Your task to perform on an android device: change the clock display to show seconds Image 0: 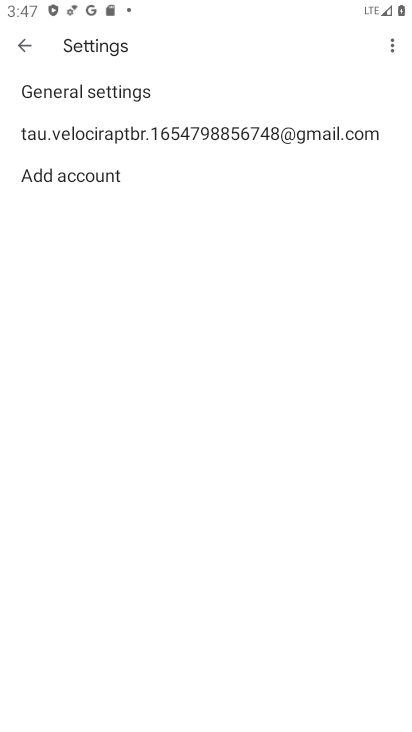
Step 0: click (25, 42)
Your task to perform on an android device: change the clock display to show seconds Image 1: 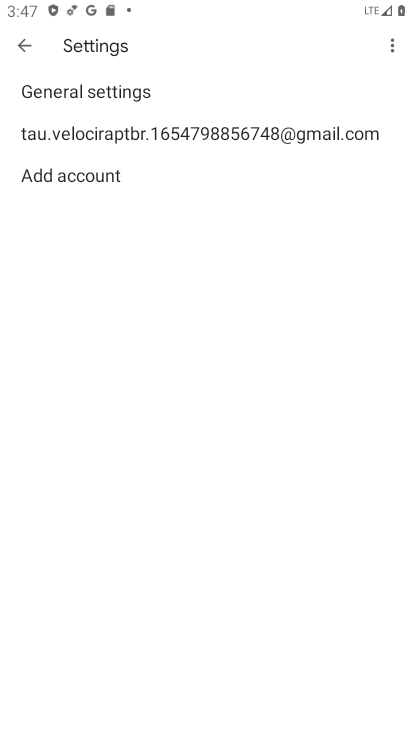
Step 1: click (25, 42)
Your task to perform on an android device: change the clock display to show seconds Image 2: 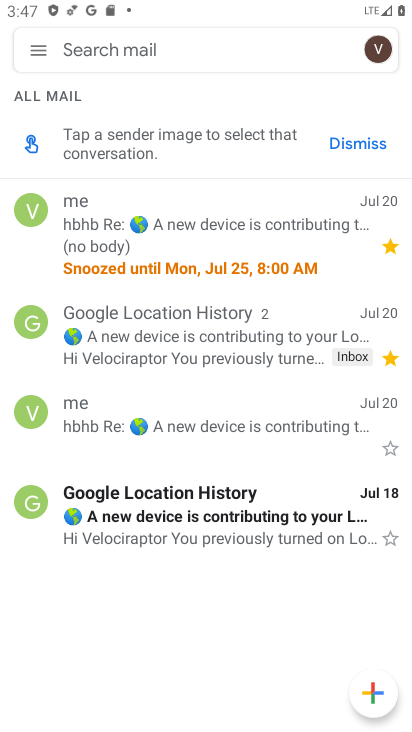
Step 2: press back button
Your task to perform on an android device: change the clock display to show seconds Image 3: 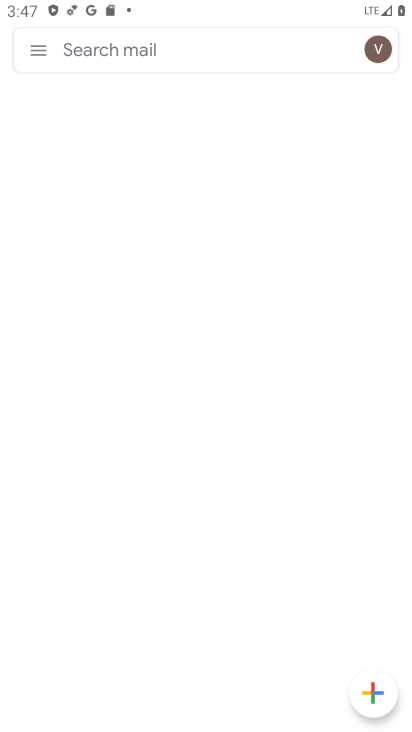
Step 3: press back button
Your task to perform on an android device: change the clock display to show seconds Image 4: 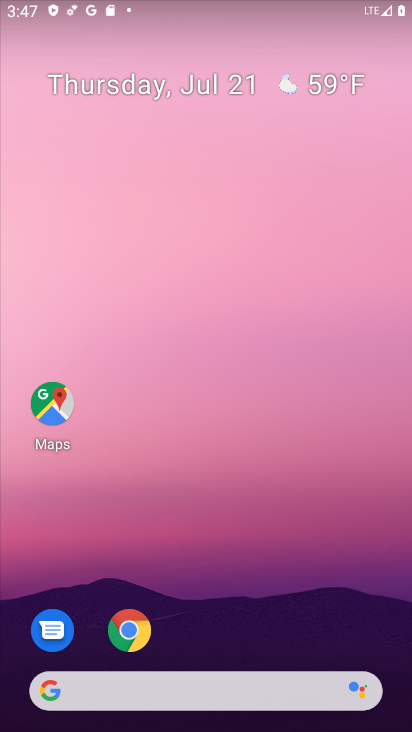
Step 4: drag from (186, 591) to (151, 5)
Your task to perform on an android device: change the clock display to show seconds Image 5: 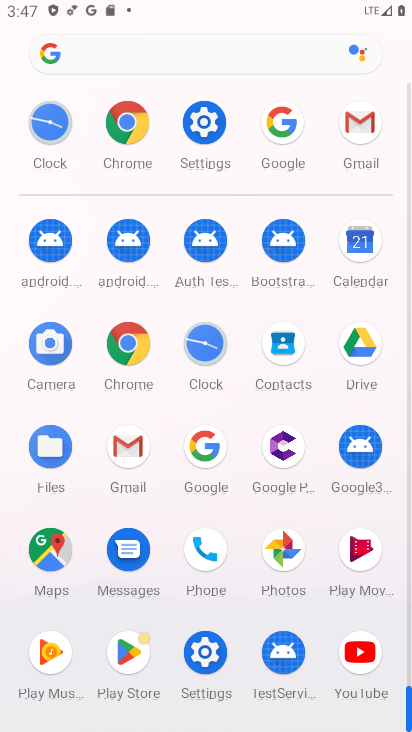
Step 5: click (208, 347)
Your task to perform on an android device: change the clock display to show seconds Image 6: 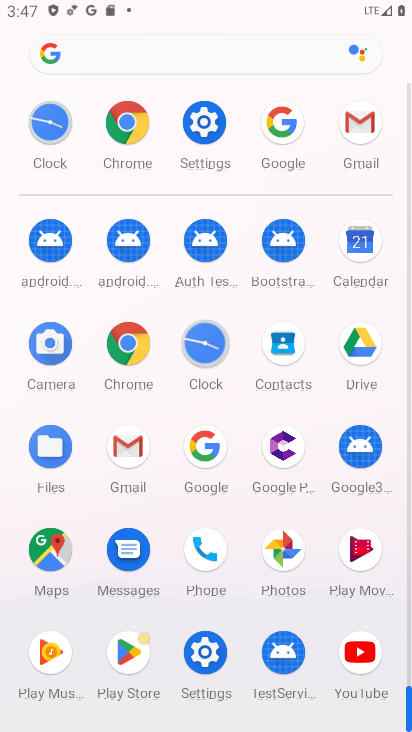
Step 6: click (209, 346)
Your task to perform on an android device: change the clock display to show seconds Image 7: 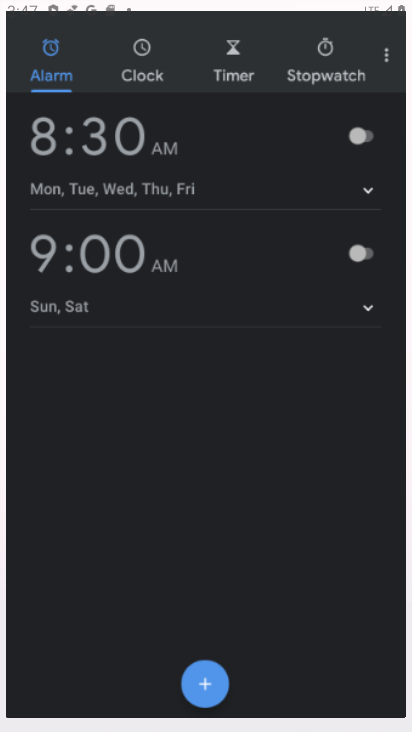
Step 7: click (210, 346)
Your task to perform on an android device: change the clock display to show seconds Image 8: 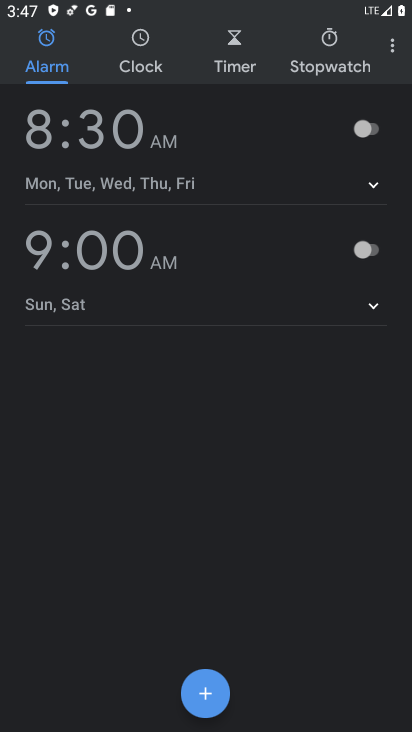
Step 8: click (210, 346)
Your task to perform on an android device: change the clock display to show seconds Image 9: 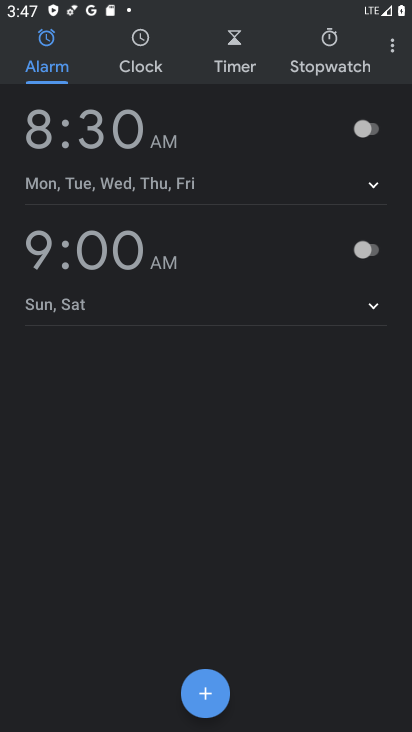
Step 9: click (389, 43)
Your task to perform on an android device: change the clock display to show seconds Image 10: 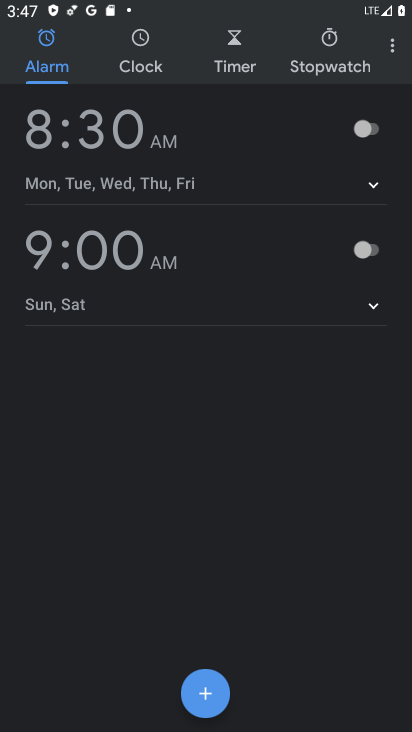
Step 10: click (409, 116)
Your task to perform on an android device: change the clock display to show seconds Image 11: 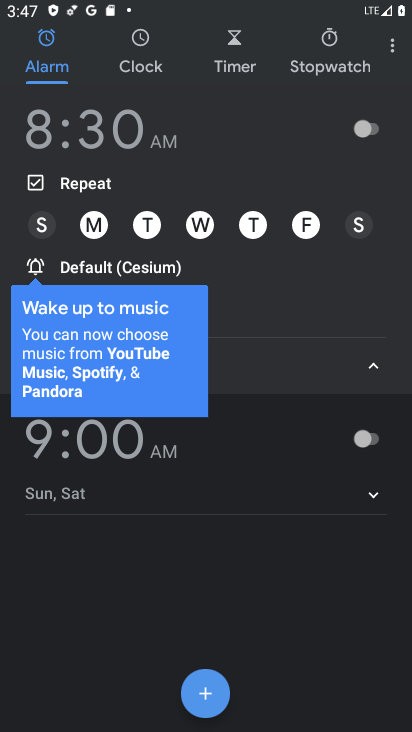
Step 11: click (384, 48)
Your task to perform on an android device: change the clock display to show seconds Image 12: 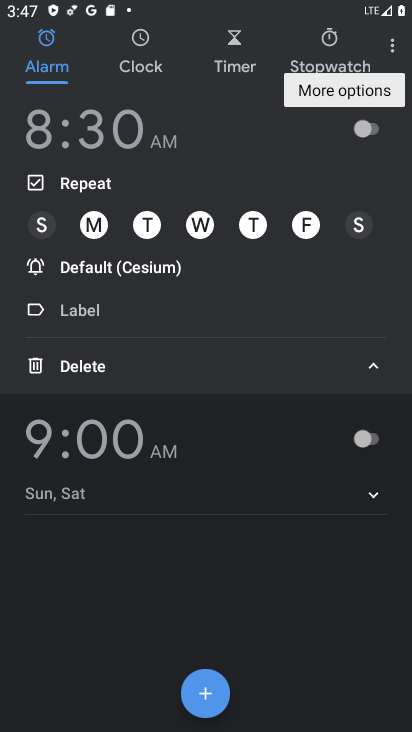
Step 12: click (390, 54)
Your task to perform on an android device: change the clock display to show seconds Image 13: 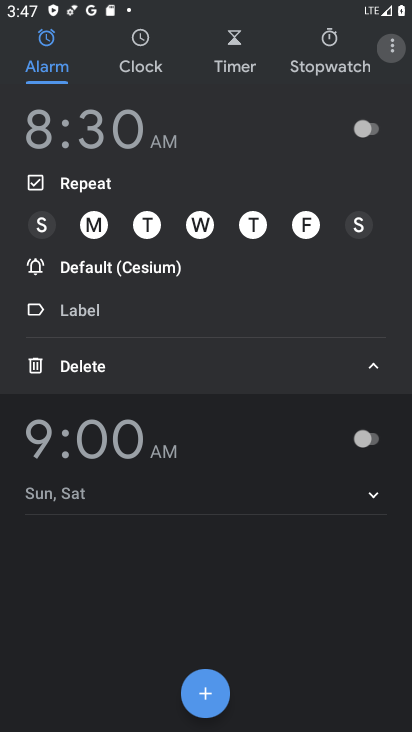
Step 13: click (390, 52)
Your task to perform on an android device: change the clock display to show seconds Image 14: 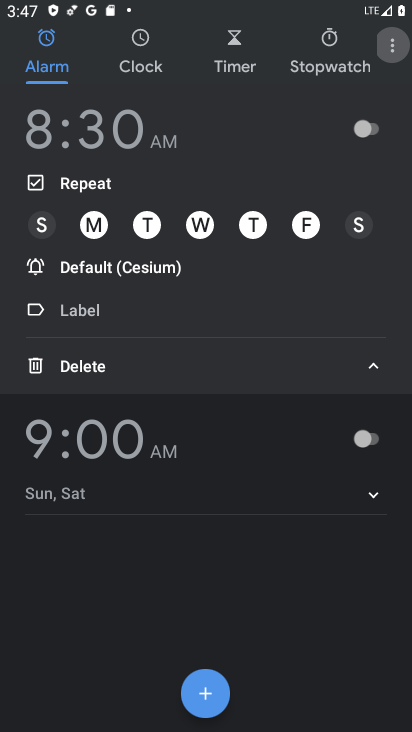
Step 14: click (390, 52)
Your task to perform on an android device: change the clock display to show seconds Image 15: 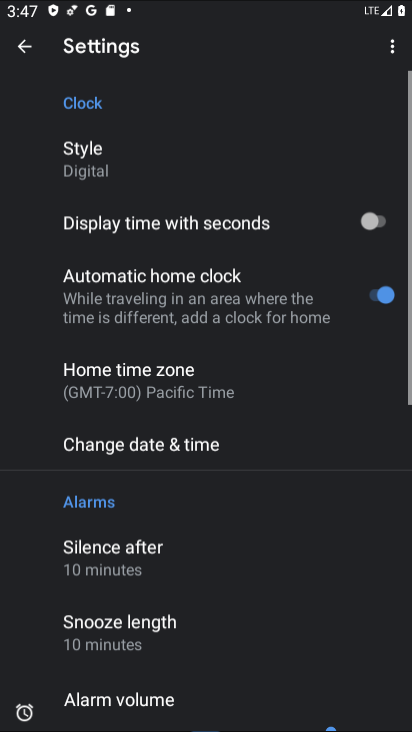
Step 15: click (291, 83)
Your task to perform on an android device: change the clock display to show seconds Image 16: 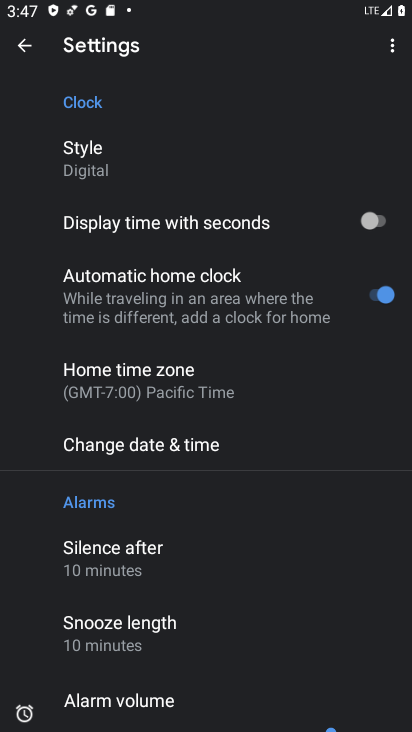
Step 16: click (366, 220)
Your task to perform on an android device: change the clock display to show seconds Image 17: 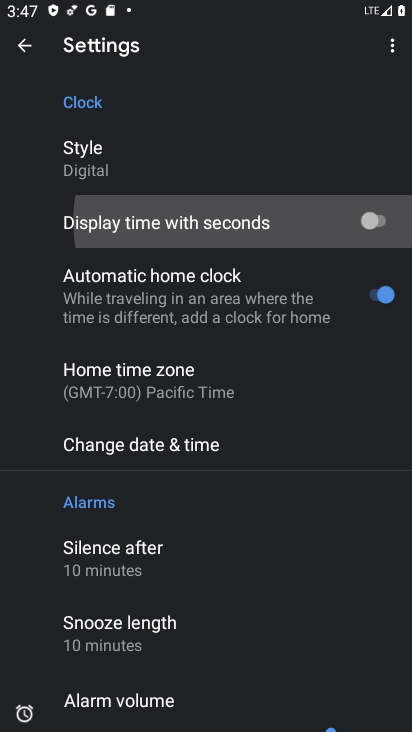
Step 17: click (373, 218)
Your task to perform on an android device: change the clock display to show seconds Image 18: 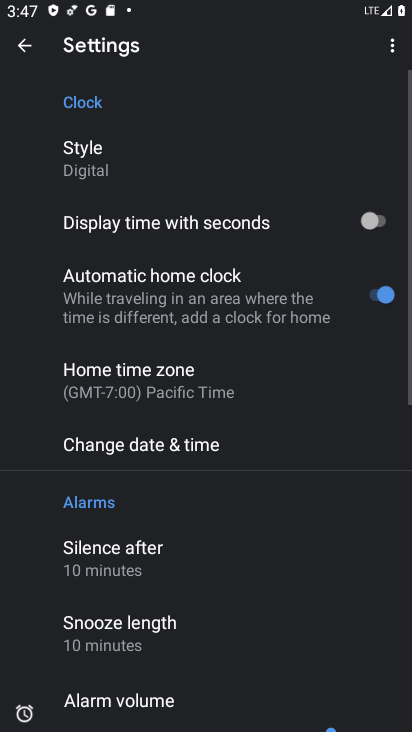
Step 18: click (376, 219)
Your task to perform on an android device: change the clock display to show seconds Image 19: 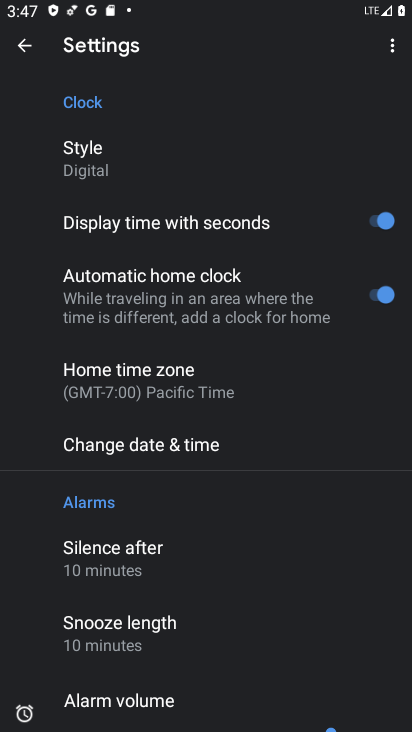
Step 19: task complete